Your task to perform on an android device: set default search engine in the chrome app Image 0: 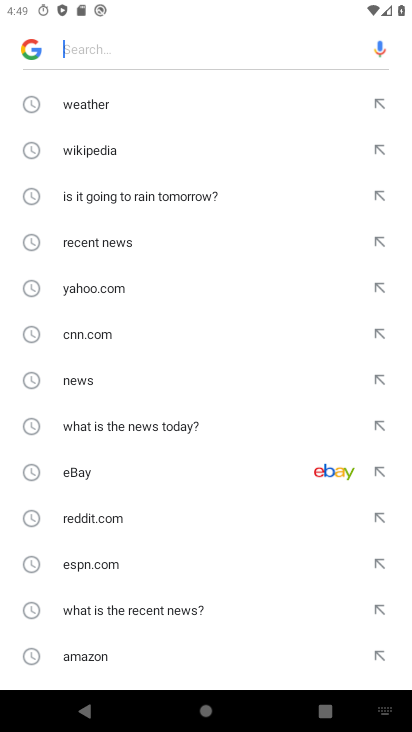
Step 0: press home button
Your task to perform on an android device: set default search engine in the chrome app Image 1: 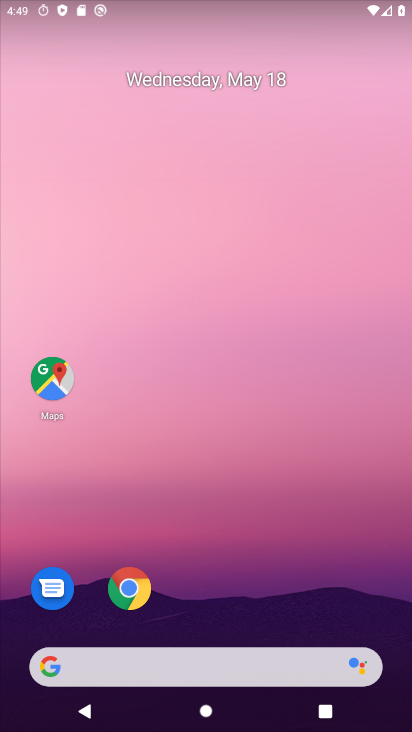
Step 1: click (119, 585)
Your task to perform on an android device: set default search engine in the chrome app Image 2: 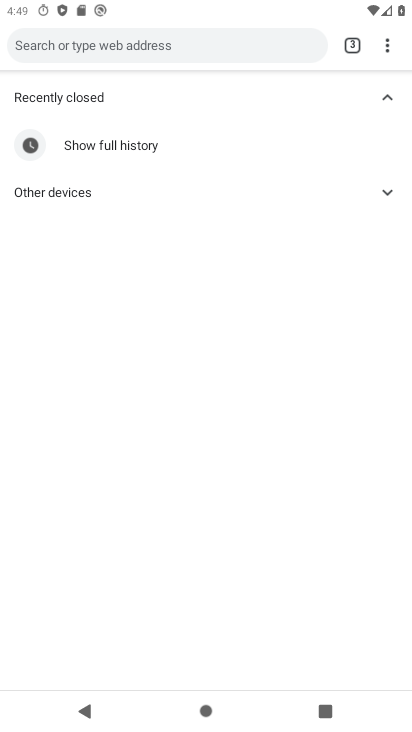
Step 2: drag from (383, 45) to (190, 393)
Your task to perform on an android device: set default search engine in the chrome app Image 3: 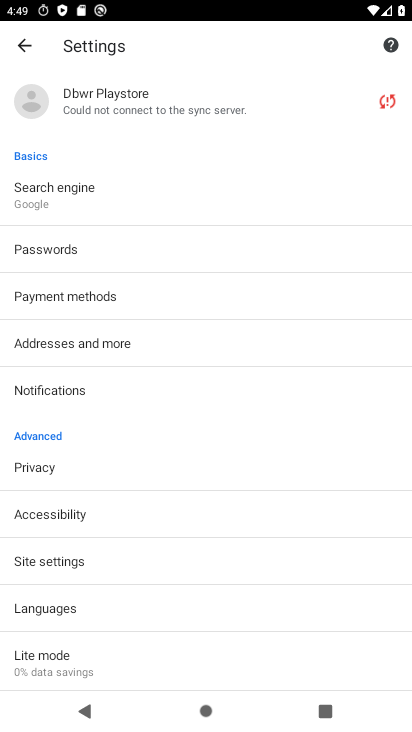
Step 3: click (50, 199)
Your task to perform on an android device: set default search engine in the chrome app Image 4: 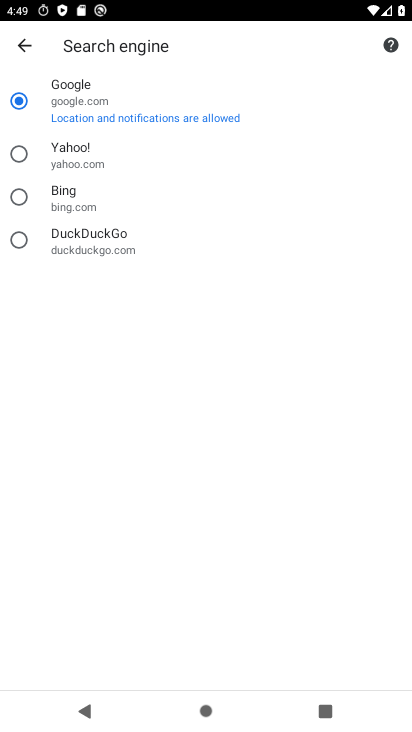
Step 4: task complete